Your task to perform on an android device: How much does a 3 bedroom apartment rent for in Denver? Image 0: 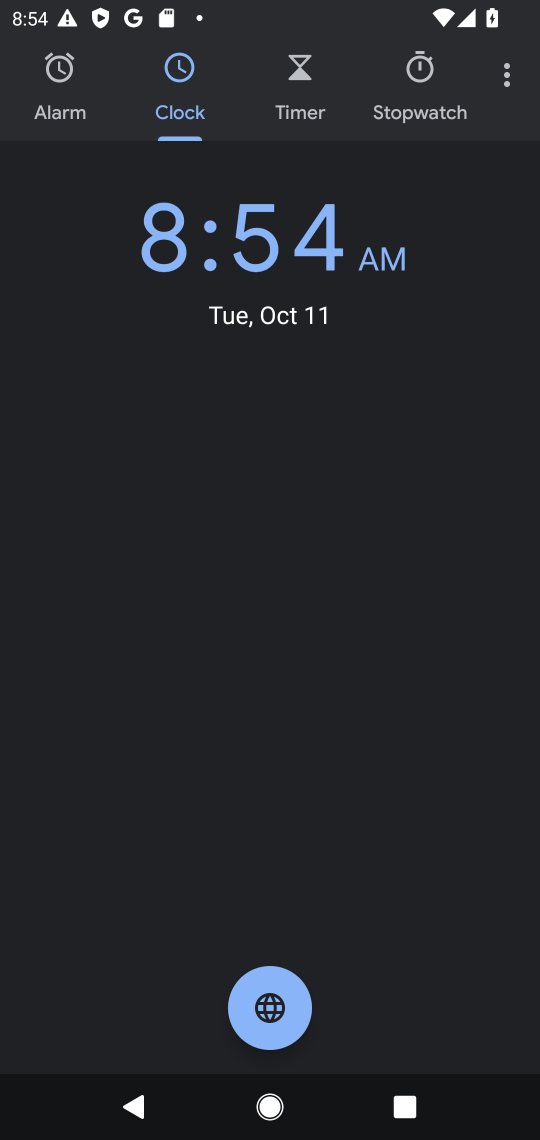
Step 0: press home button
Your task to perform on an android device: How much does a 3 bedroom apartment rent for in Denver? Image 1: 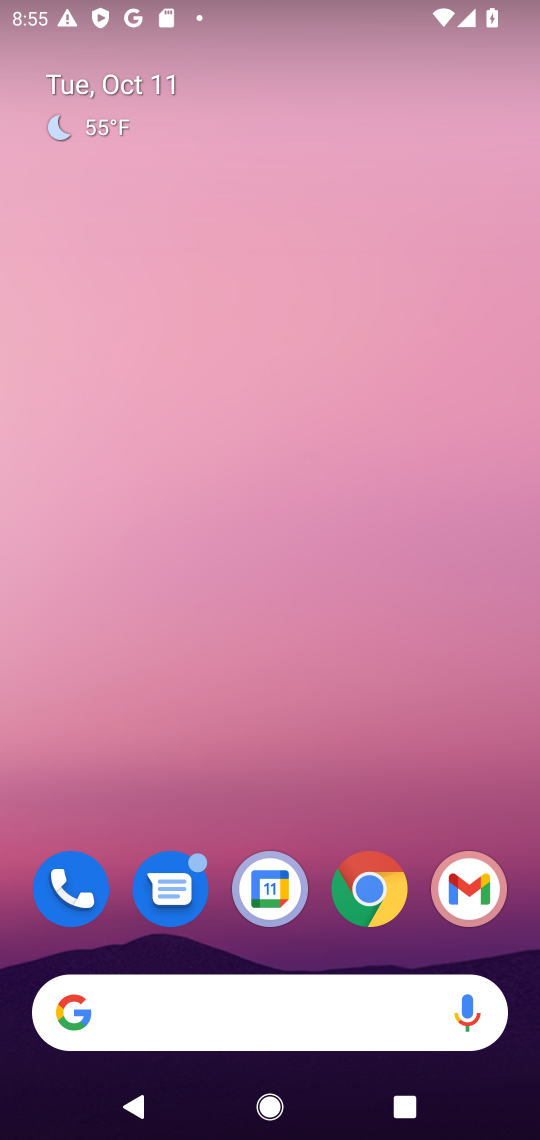
Step 1: click (229, 999)
Your task to perform on an android device: How much does a 3 bedroom apartment rent for in Denver? Image 2: 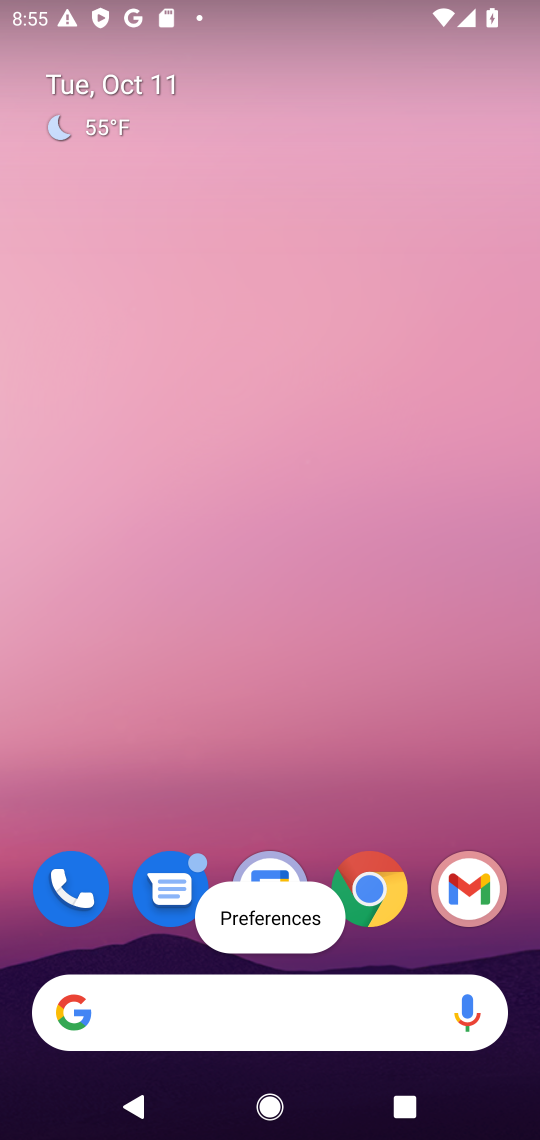
Step 2: click (158, 1024)
Your task to perform on an android device: How much does a 3 bedroom apartment rent for in Denver? Image 3: 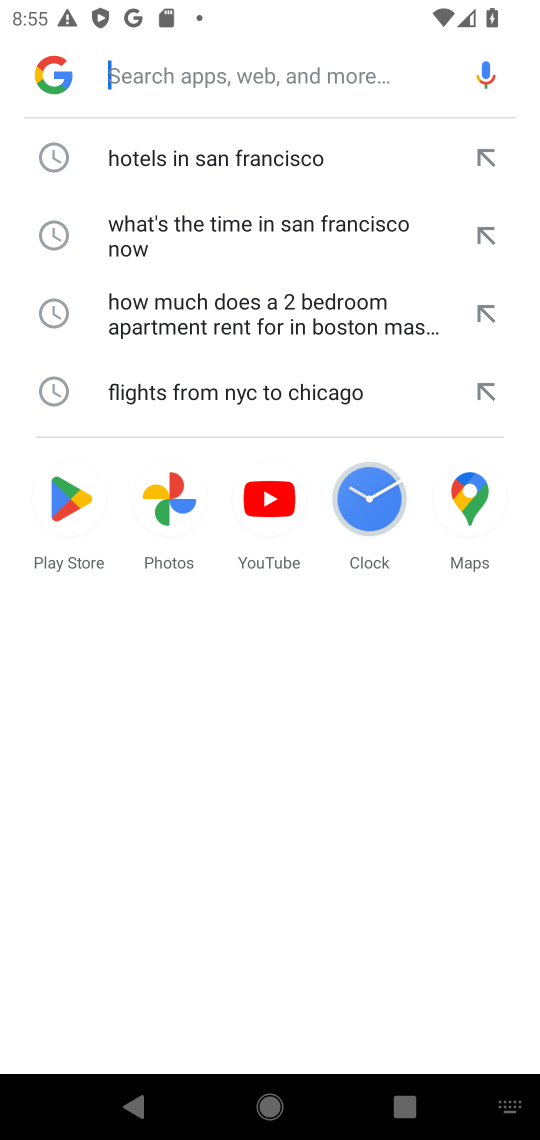
Step 3: click (227, 79)
Your task to perform on an android device: How much does a 3 bedroom apartment rent for in Denver? Image 4: 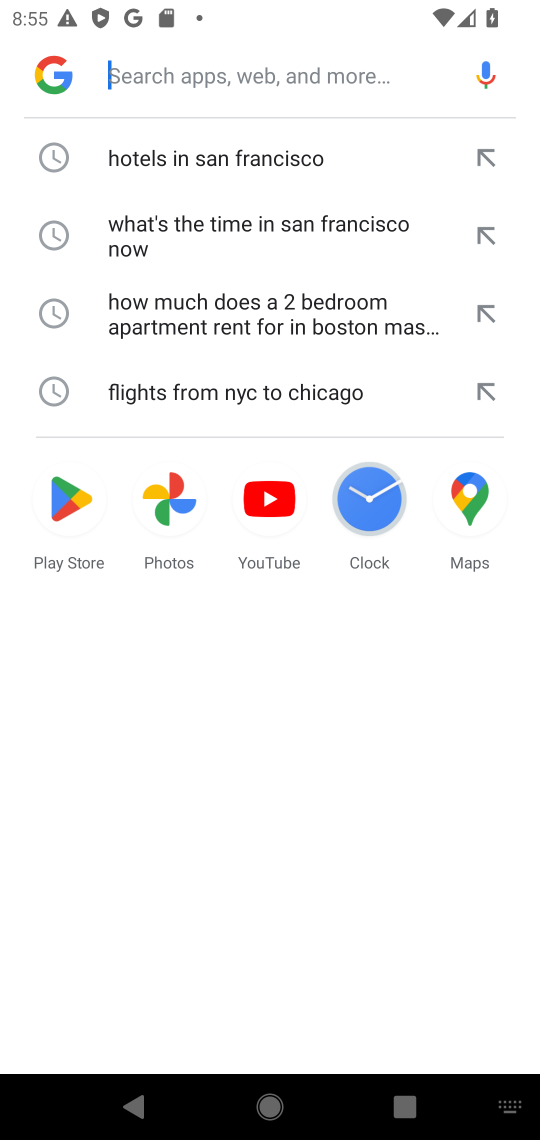
Step 4: type "How much does a 3 bedroom apartment rent for in Denver?"
Your task to perform on an android device: How much does a 3 bedroom apartment rent for in Denver? Image 5: 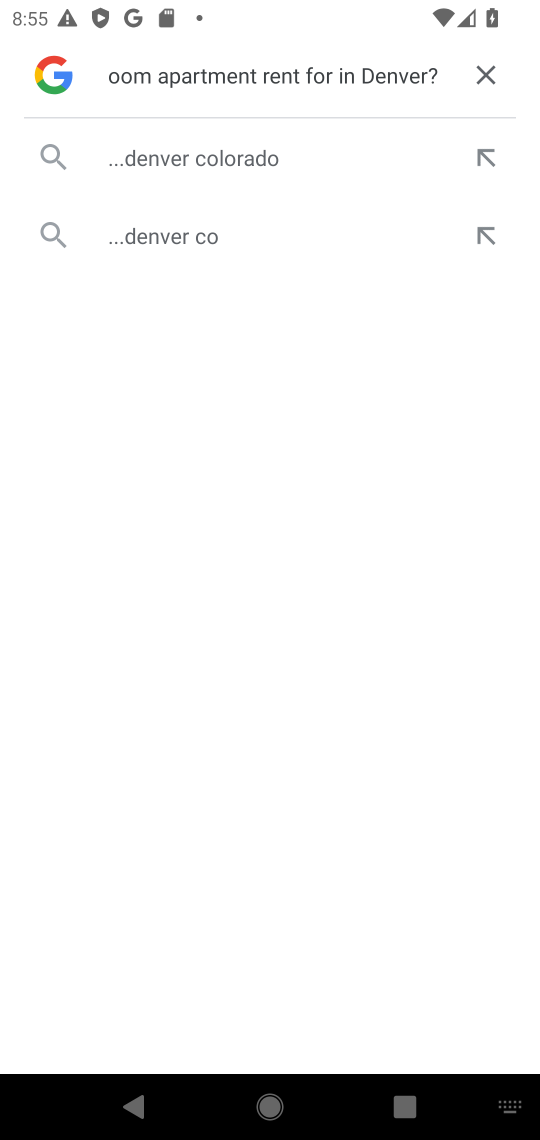
Step 5: click (203, 147)
Your task to perform on an android device: How much does a 3 bedroom apartment rent for in Denver? Image 6: 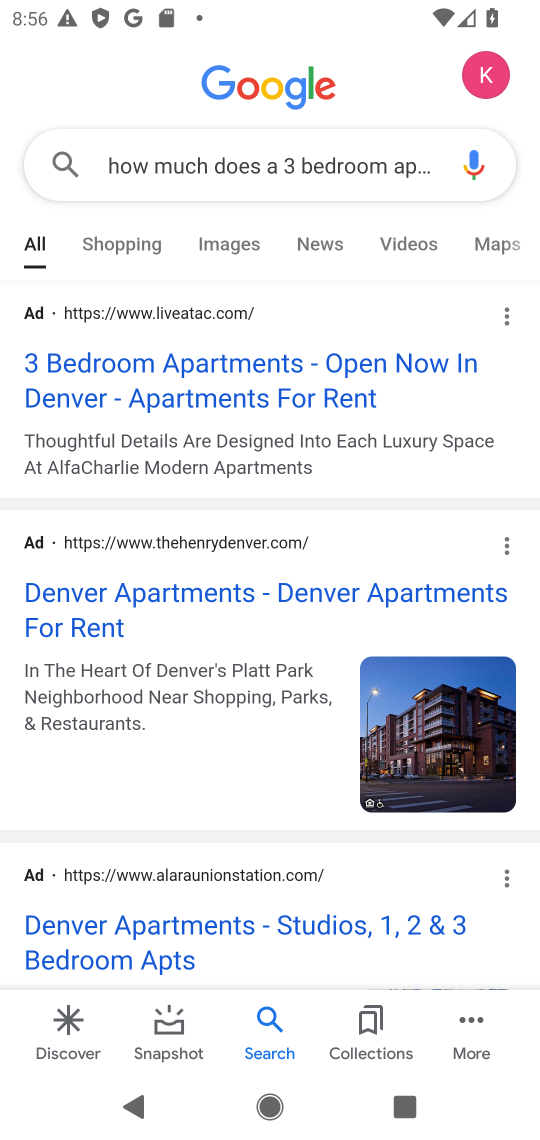
Step 6: task complete